Your task to perform on an android device: turn vacation reply on in the gmail app Image 0: 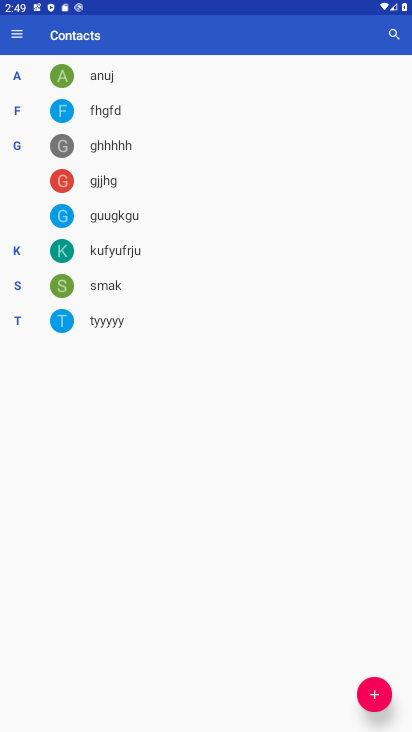
Step 0: press home button
Your task to perform on an android device: turn vacation reply on in the gmail app Image 1: 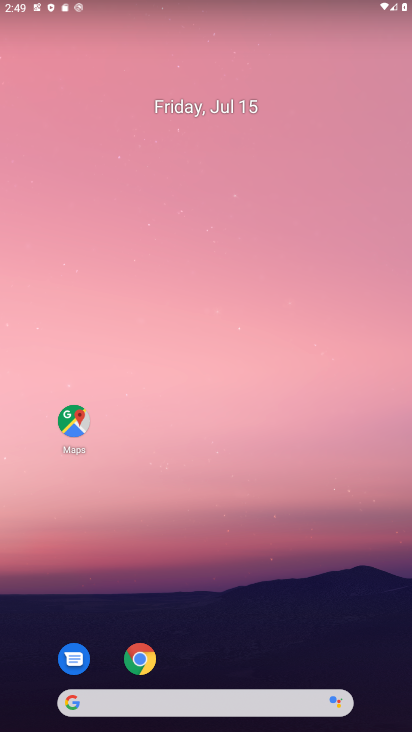
Step 1: drag from (170, 592) to (160, 304)
Your task to perform on an android device: turn vacation reply on in the gmail app Image 2: 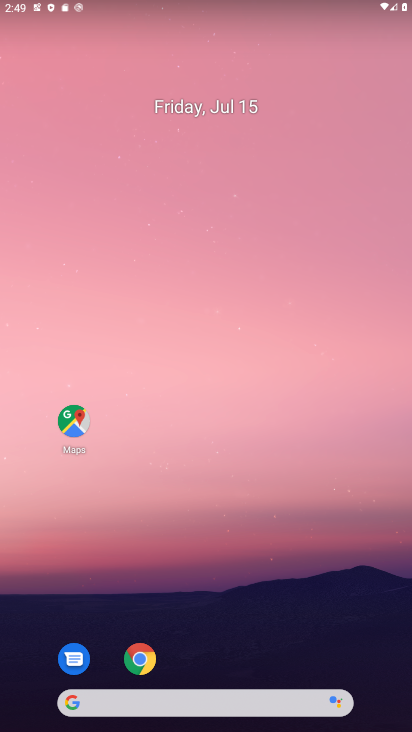
Step 2: drag from (162, 689) to (159, 243)
Your task to perform on an android device: turn vacation reply on in the gmail app Image 3: 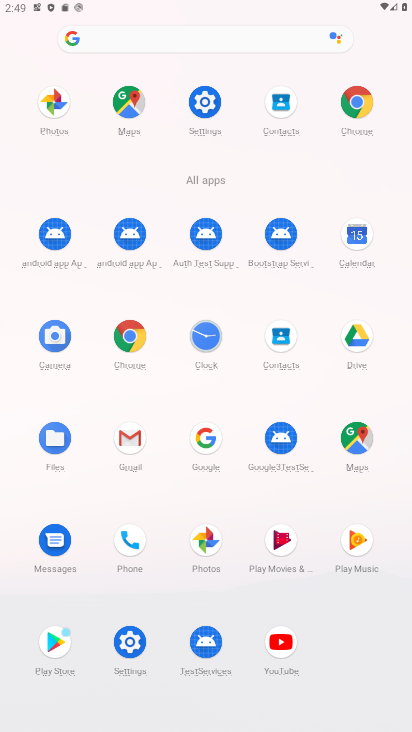
Step 3: click (135, 434)
Your task to perform on an android device: turn vacation reply on in the gmail app Image 4: 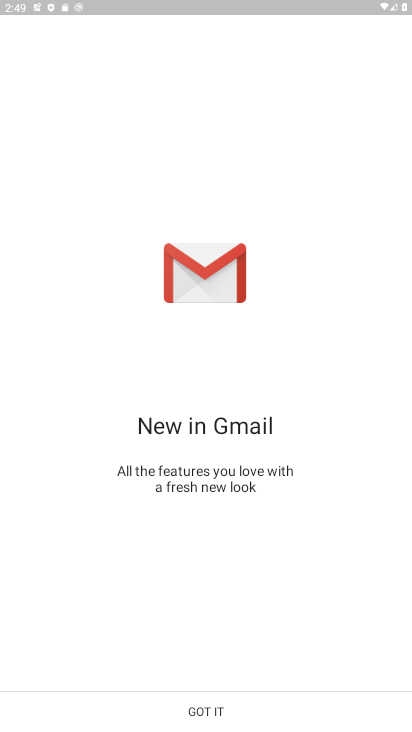
Step 4: click (172, 706)
Your task to perform on an android device: turn vacation reply on in the gmail app Image 5: 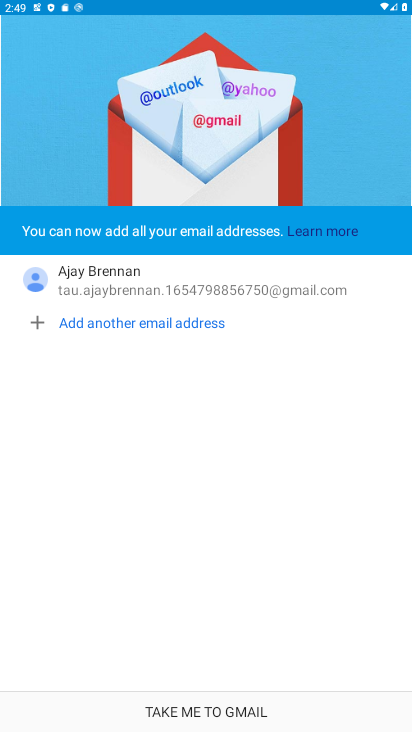
Step 5: click (172, 706)
Your task to perform on an android device: turn vacation reply on in the gmail app Image 6: 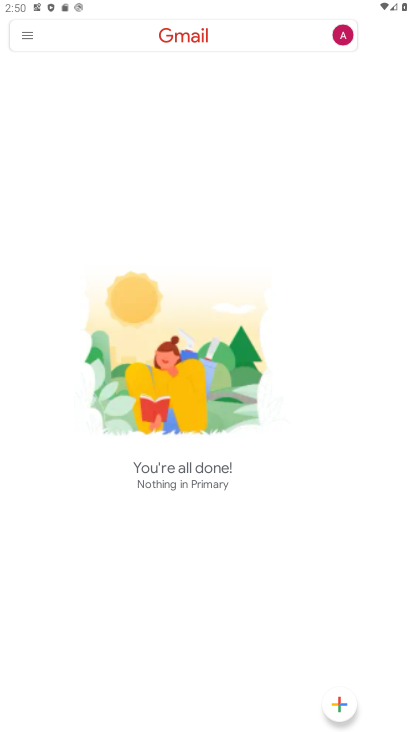
Step 6: click (23, 30)
Your task to perform on an android device: turn vacation reply on in the gmail app Image 7: 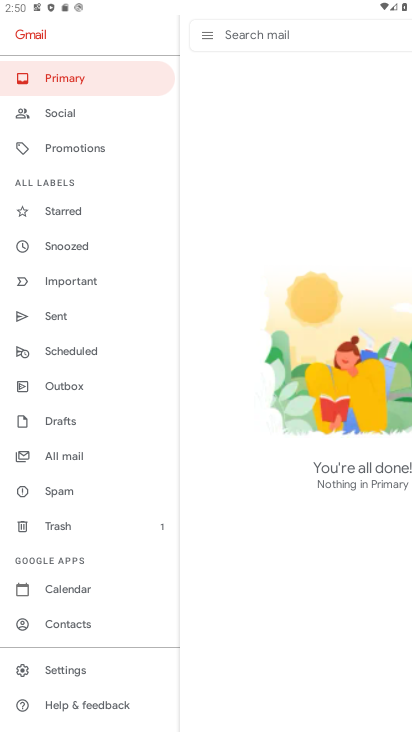
Step 7: click (66, 674)
Your task to perform on an android device: turn vacation reply on in the gmail app Image 8: 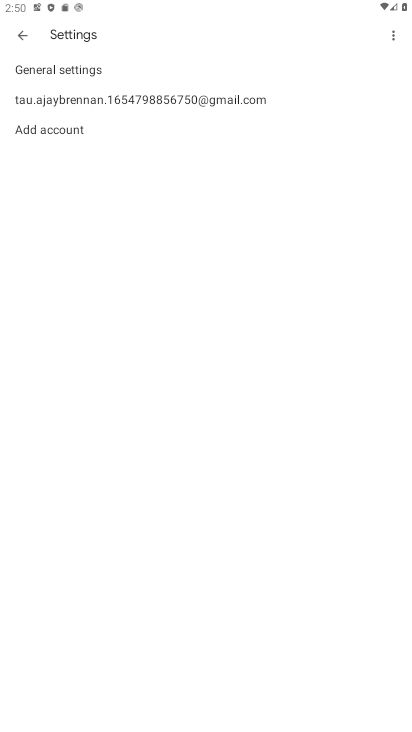
Step 8: click (64, 98)
Your task to perform on an android device: turn vacation reply on in the gmail app Image 9: 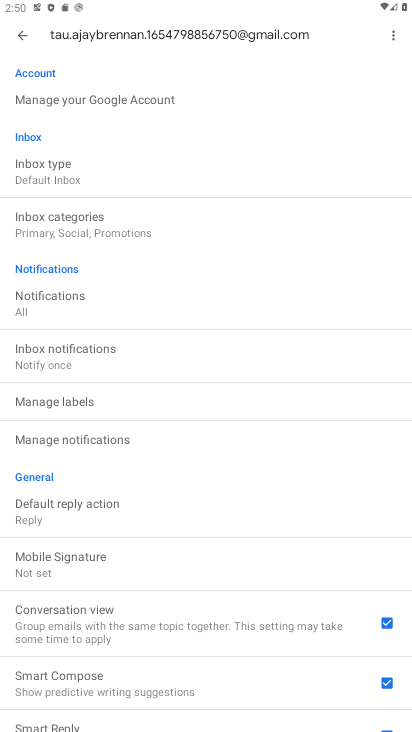
Step 9: drag from (69, 716) to (66, 292)
Your task to perform on an android device: turn vacation reply on in the gmail app Image 10: 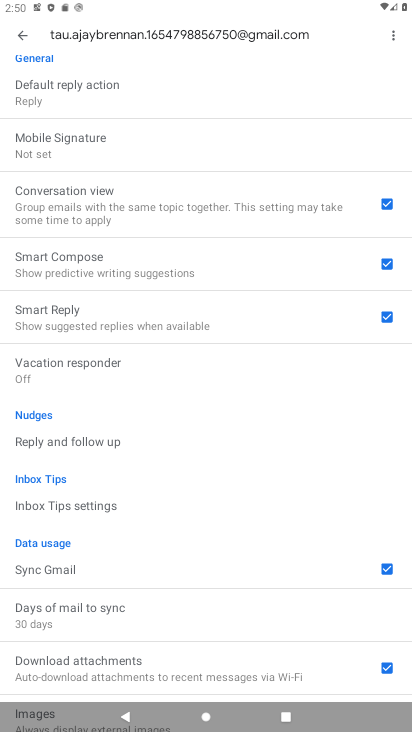
Step 10: click (41, 353)
Your task to perform on an android device: turn vacation reply on in the gmail app Image 11: 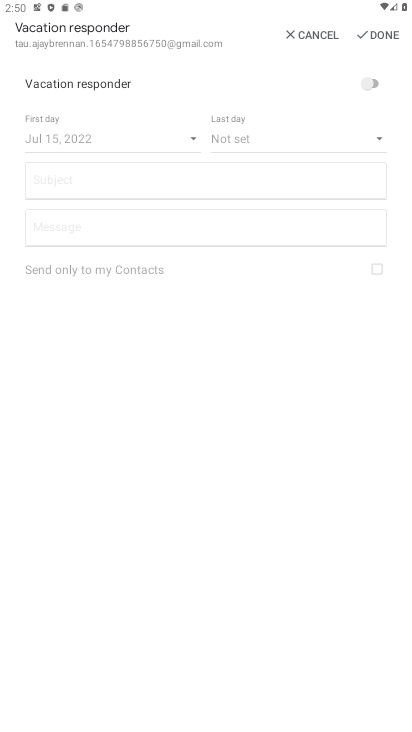
Step 11: click (365, 86)
Your task to perform on an android device: turn vacation reply on in the gmail app Image 12: 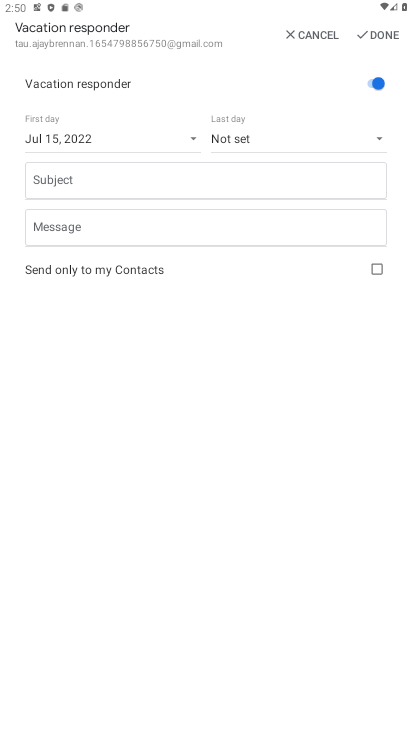
Step 12: click (374, 33)
Your task to perform on an android device: turn vacation reply on in the gmail app Image 13: 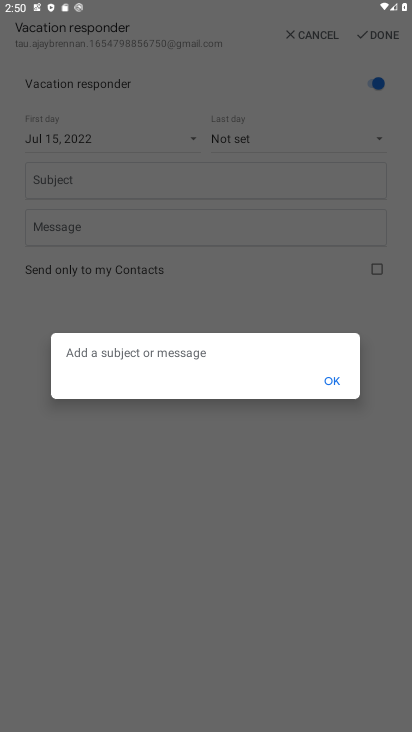
Step 13: click (336, 375)
Your task to perform on an android device: turn vacation reply on in the gmail app Image 14: 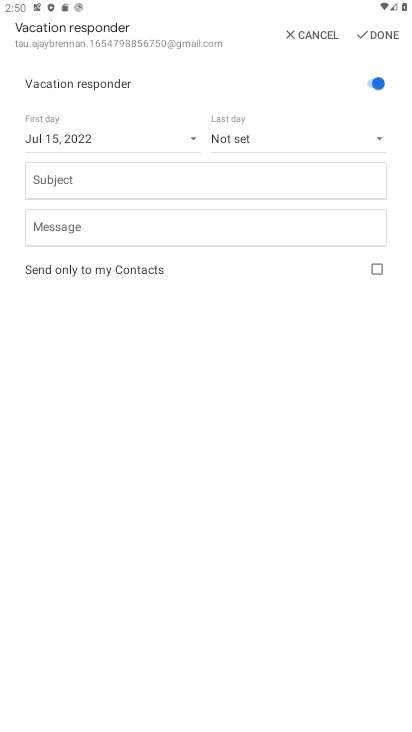
Step 14: task complete